Your task to perform on an android device: install app "HBO Max: Stream TV & Movies" Image 0: 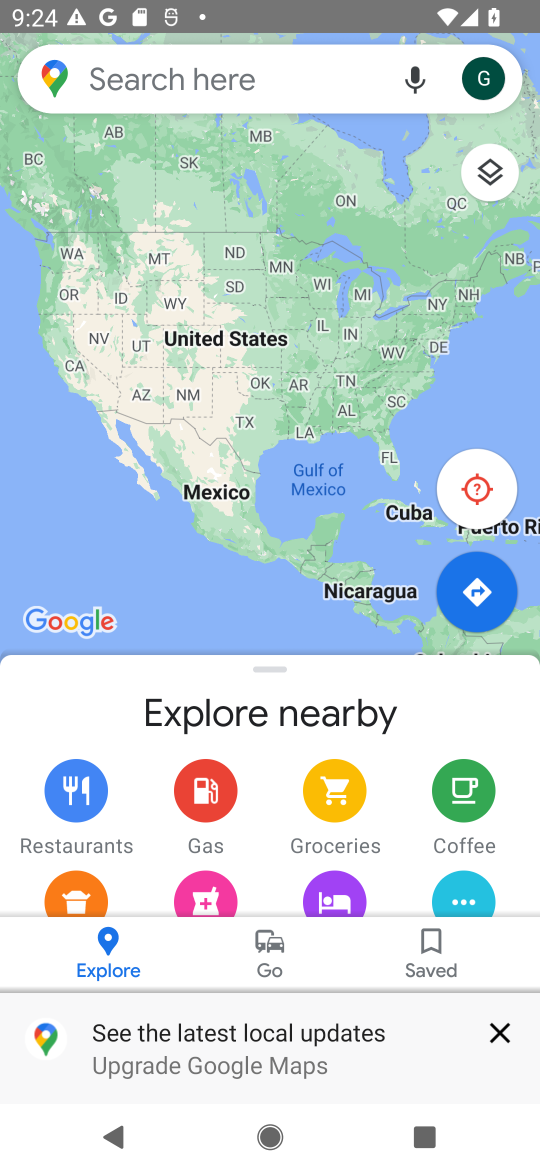
Step 0: press home button
Your task to perform on an android device: install app "HBO Max: Stream TV & Movies" Image 1: 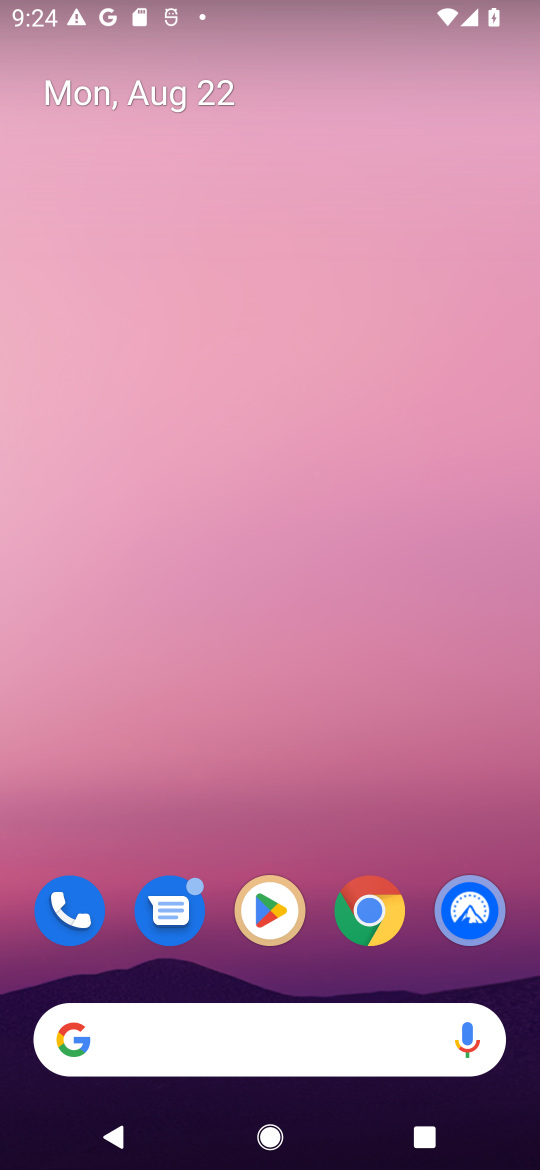
Step 1: click (266, 909)
Your task to perform on an android device: install app "HBO Max: Stream TV & Movies" Image 2: 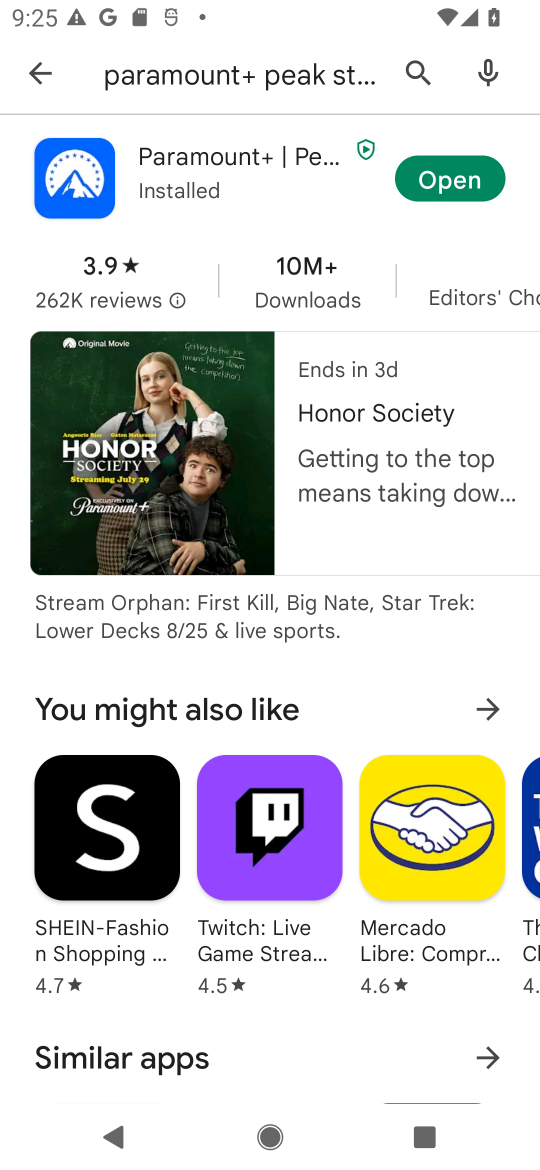
Step 2: click (412, 71)
Your task to perform on an android device: install app "HBO Max: Stream TV & Movies" Image 3: 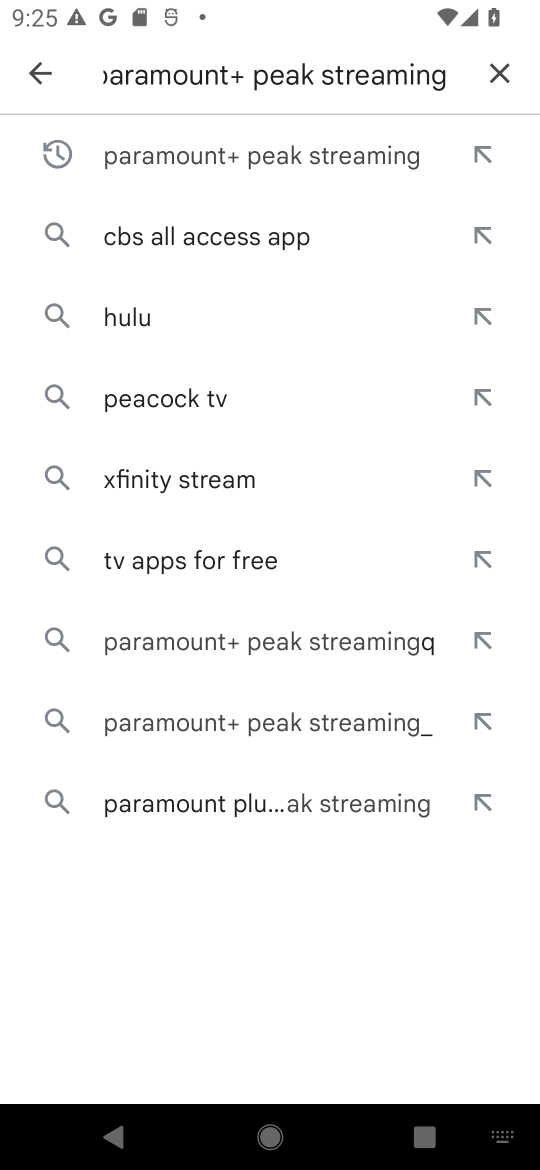
Step 3: click (489, 73)
Your task to perform on an android device: install app "HBO Max: Stream TV & Movies" Image 4: 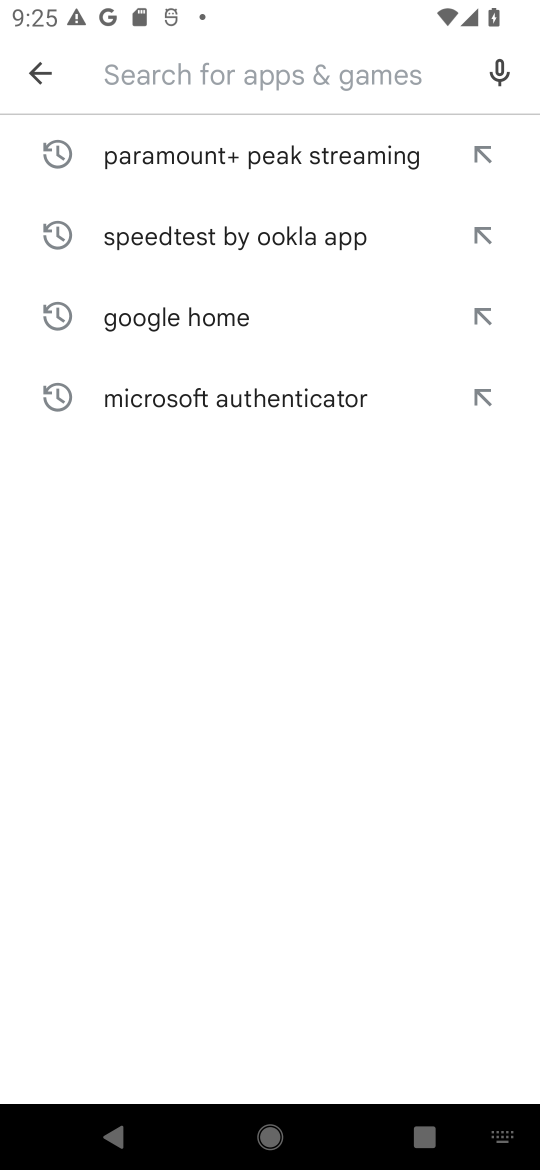
Step 4: type "HBO Max: Stream TV & Movies"
Your task to perform on an android device: install app "HBO Max: Stream TV & Movies" Image 5: 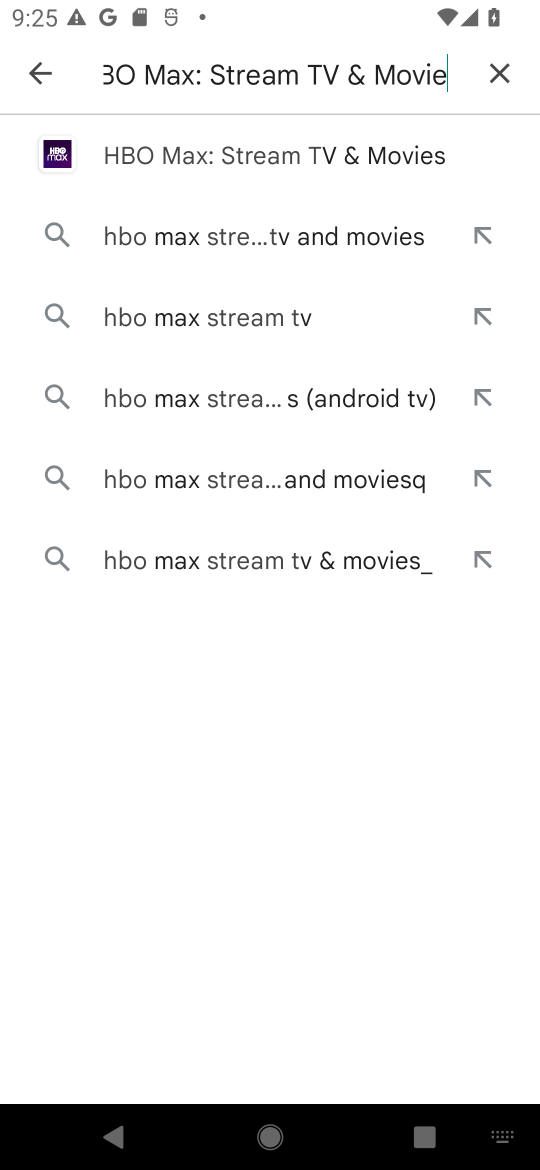
Step 5: type ""
Your task to perform on an android device: install app "HBO Max: Stream TV & Movies" Image 6: 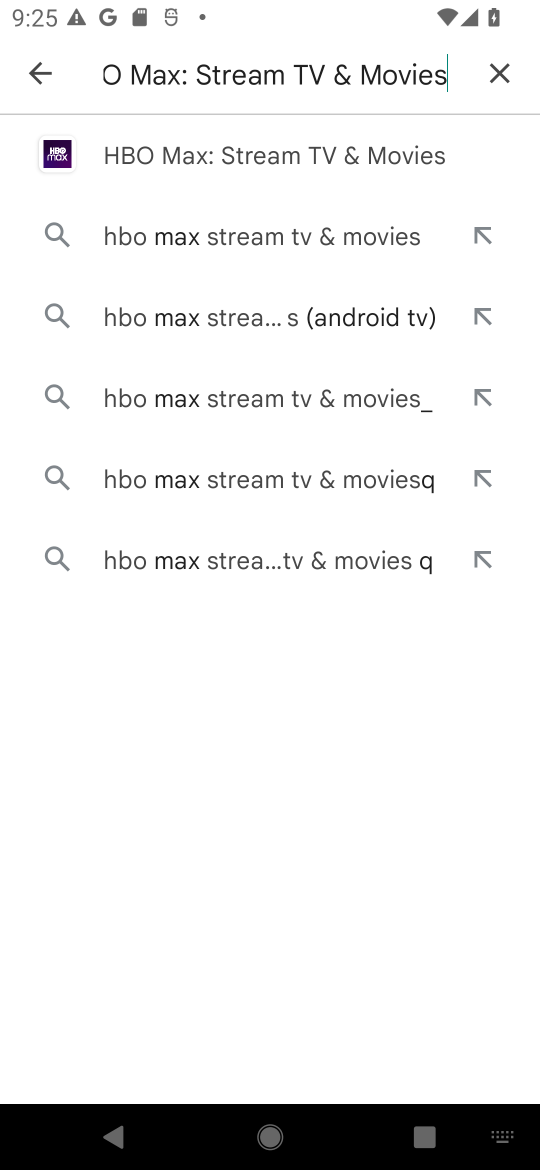
Step 6: click (213, 169)
Your task to perform on an android device: install app "HBO Max: Stream TV & Movies" Image 7: 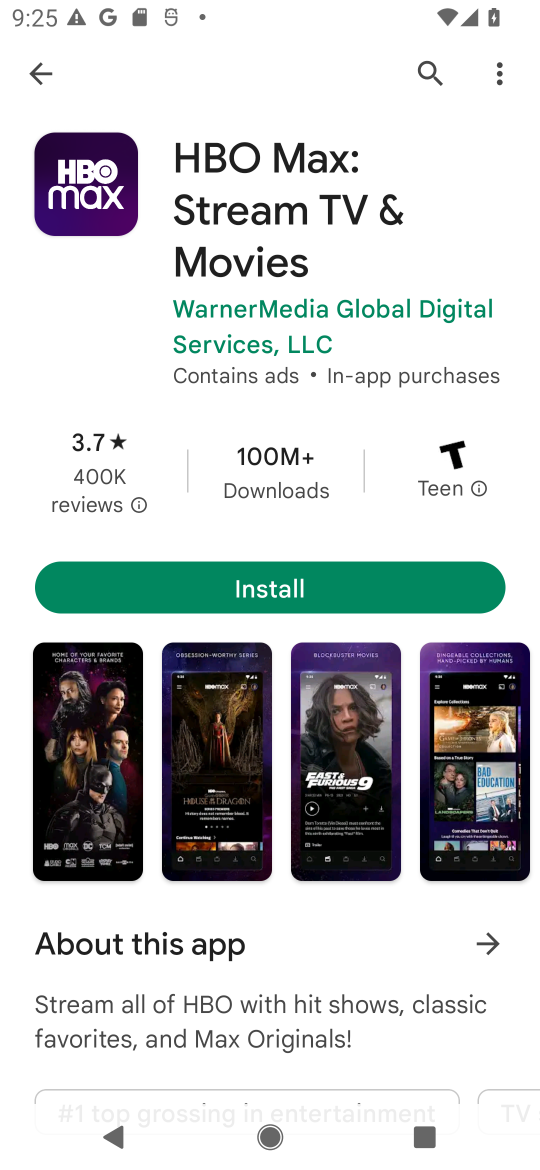
Step 7: click (233, 585)
Your task to perform on an android device: install app "HBO Max: Stream TV & Movies" Image 8: 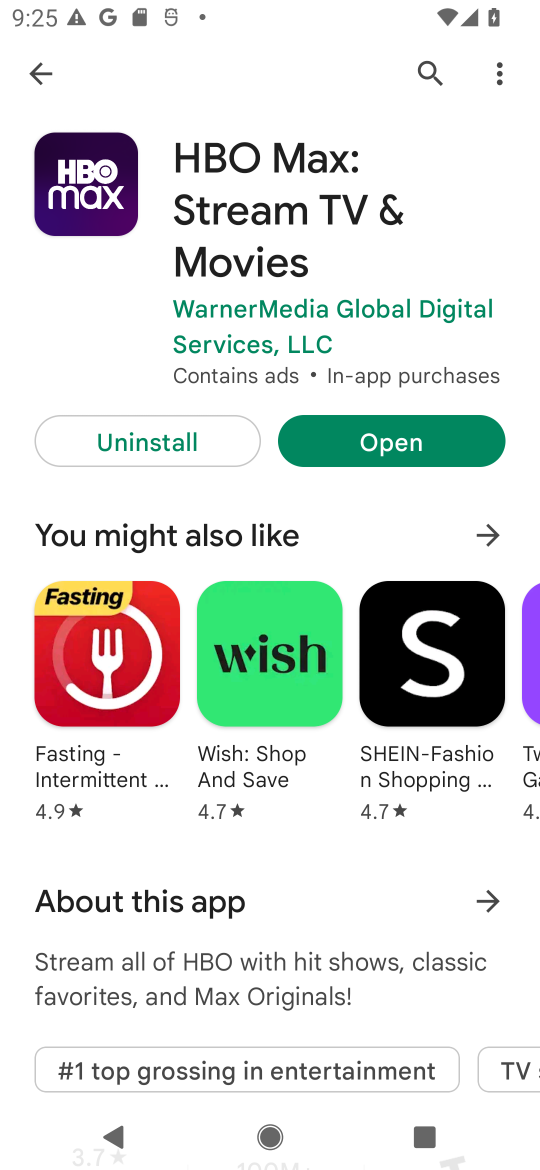
Step 8: task complete